Your task to perform on an android device: check data usage Image 0: 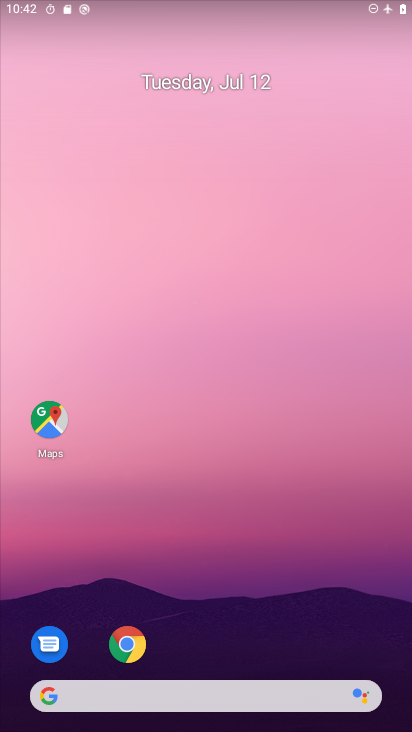
Step 0: drag from (215, 633) to (200, 252)
Your task to perform on an android device: check data usage Image 1: 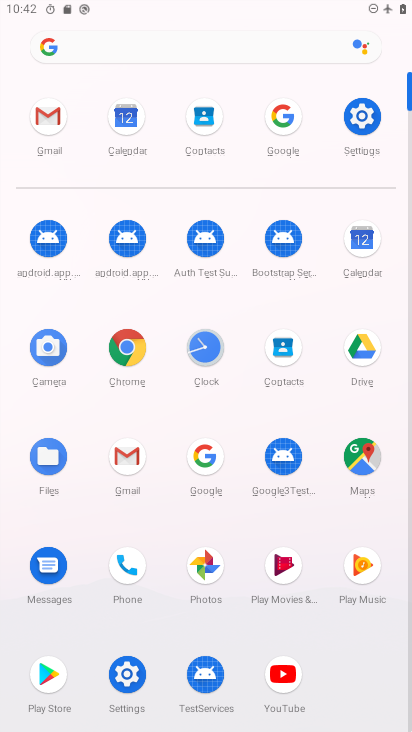
Step 1: click (358, 133)
Your task to perform on an android device: check data usage Image 2: 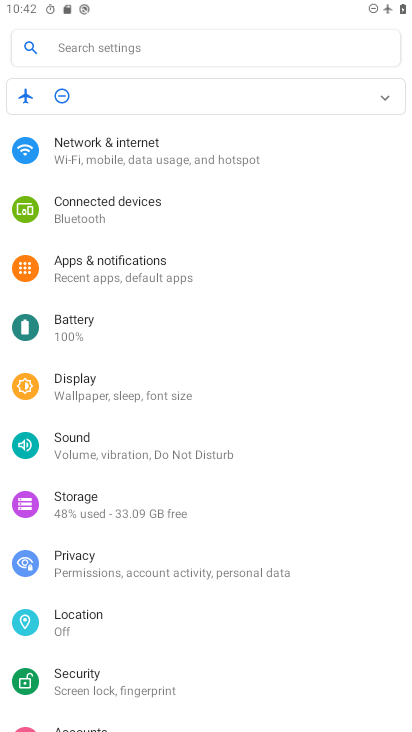
Step 2: click (158, 153)
Your task to perform on an android device: check data usage Image 3: 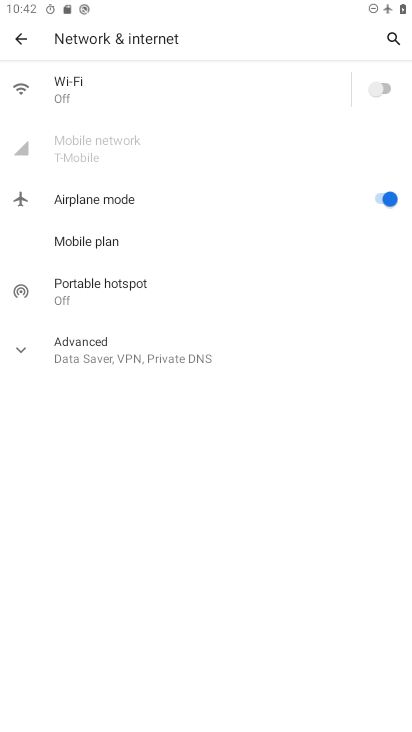
Step 3: task complete